Your task to perform on an android device: find snoozed emails in the gmail app Image 0: 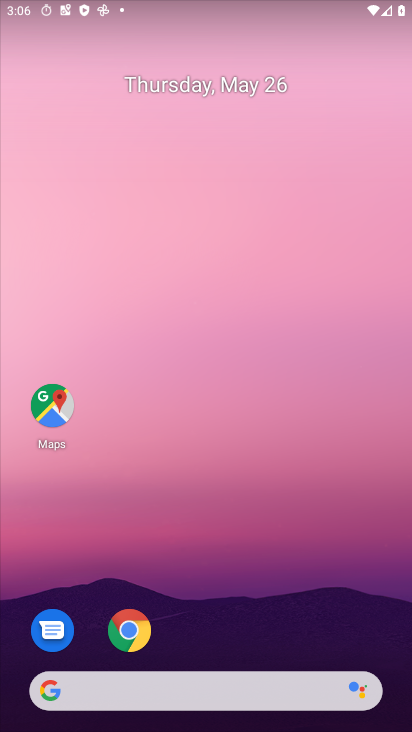
Step 0: drag from (338, 543) to (337, 427)
Your task to perform on an android device: find snoozed emails in the gmail app Image 1: 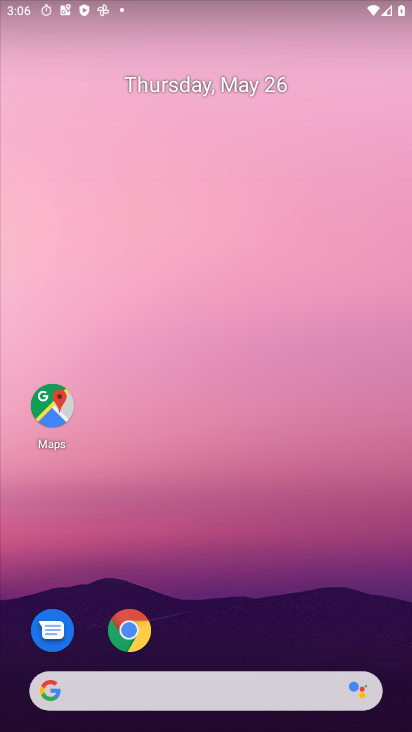
Step 1: drag from (321, 647) to (323, 236)
Your task to perform on an android device: find snoozed emails in the gmail app Image 2: 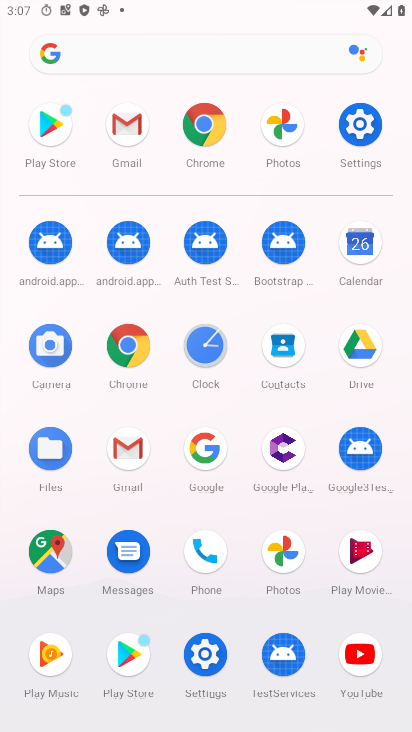
Step 2: click (127, 142)
Your task to perform on an android device: find snoozed emails in the gmail app Image 3: 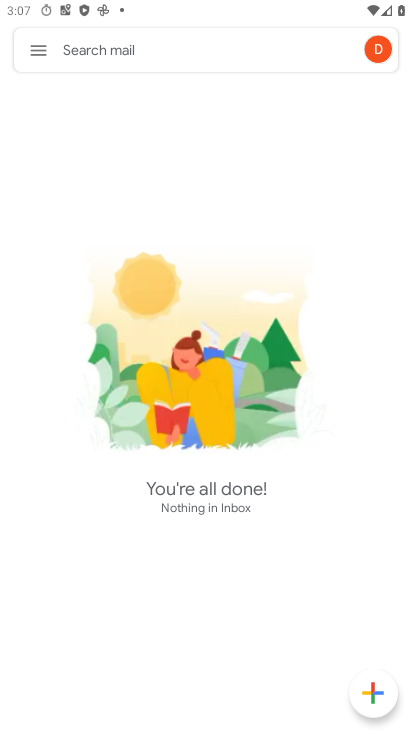
Step 3: click (45, 55)
Your task to perform on an android device: find snoozed emails in the gmail app Image 4: 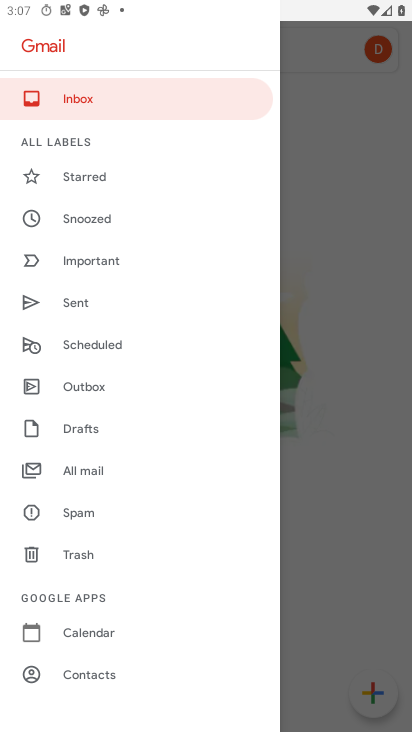
Step 4: click (96, 227)
Your task to perform on an android device: find snoozed emails in the gmail app Image 5: 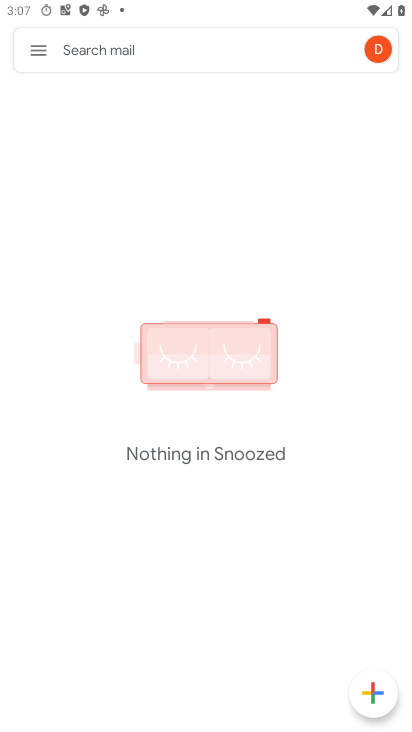
Step 5: task complete